Your task to perform on an android device: Go to battery settings Image 0: 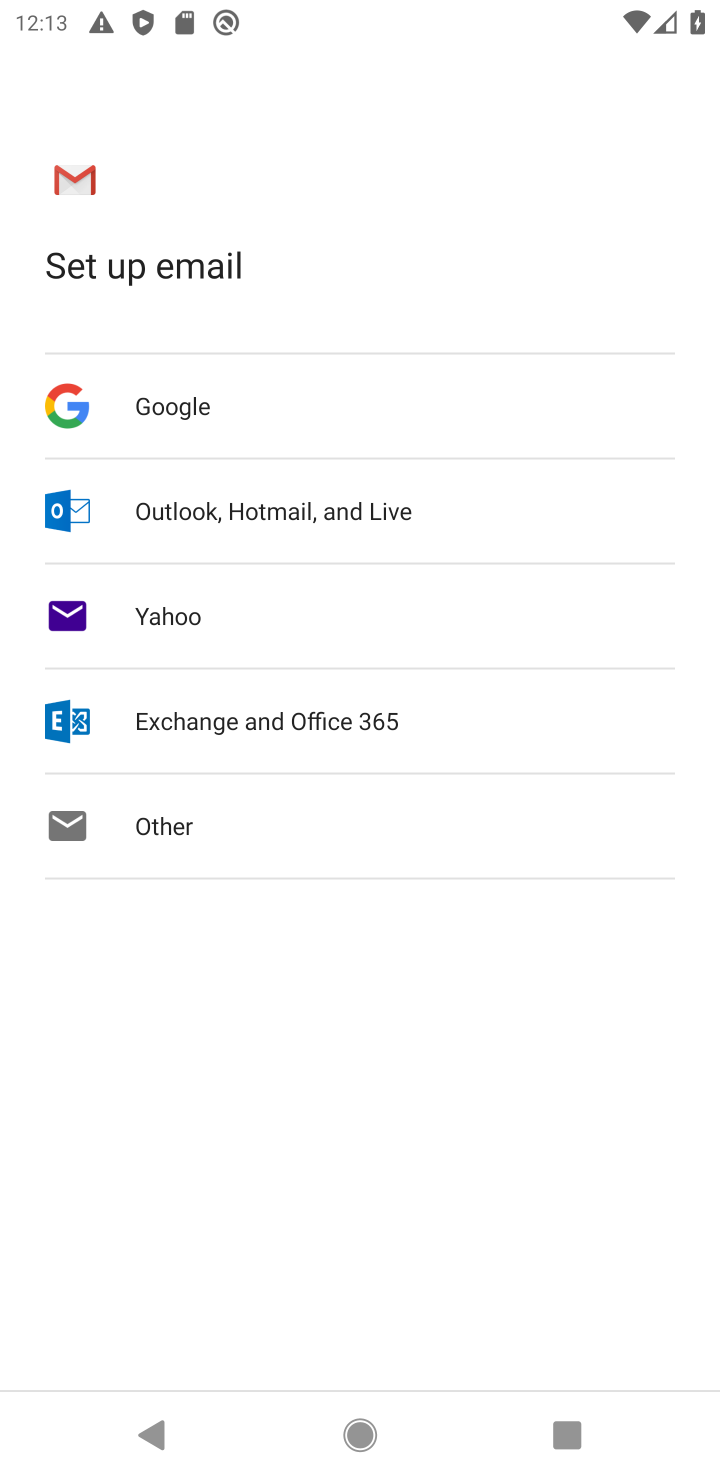
Step 0: press home button
Your task to perform on an android device: Go to battery settings Image 1: 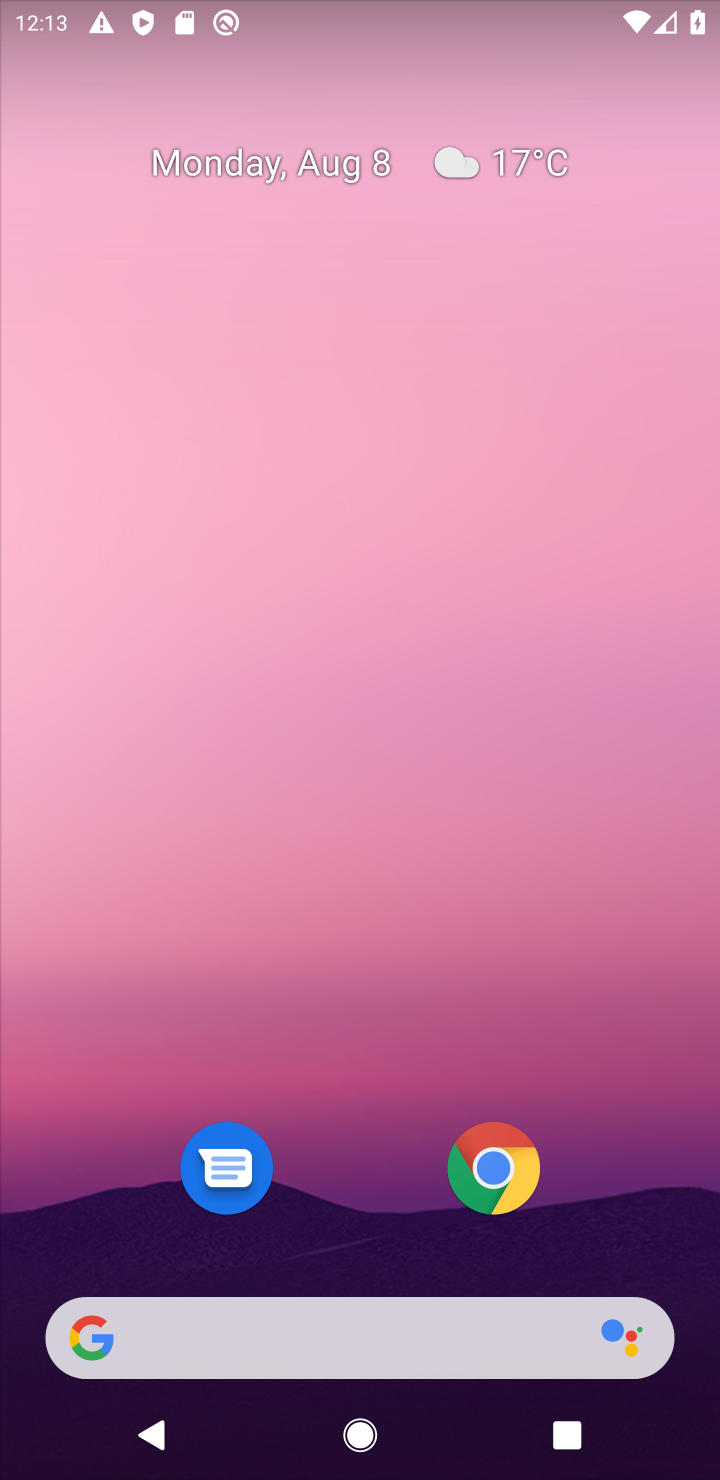
Step 1: drag from (59, 1409) to (369, 544)
Your task to perform on an android device: Go to battery settings Image 2: 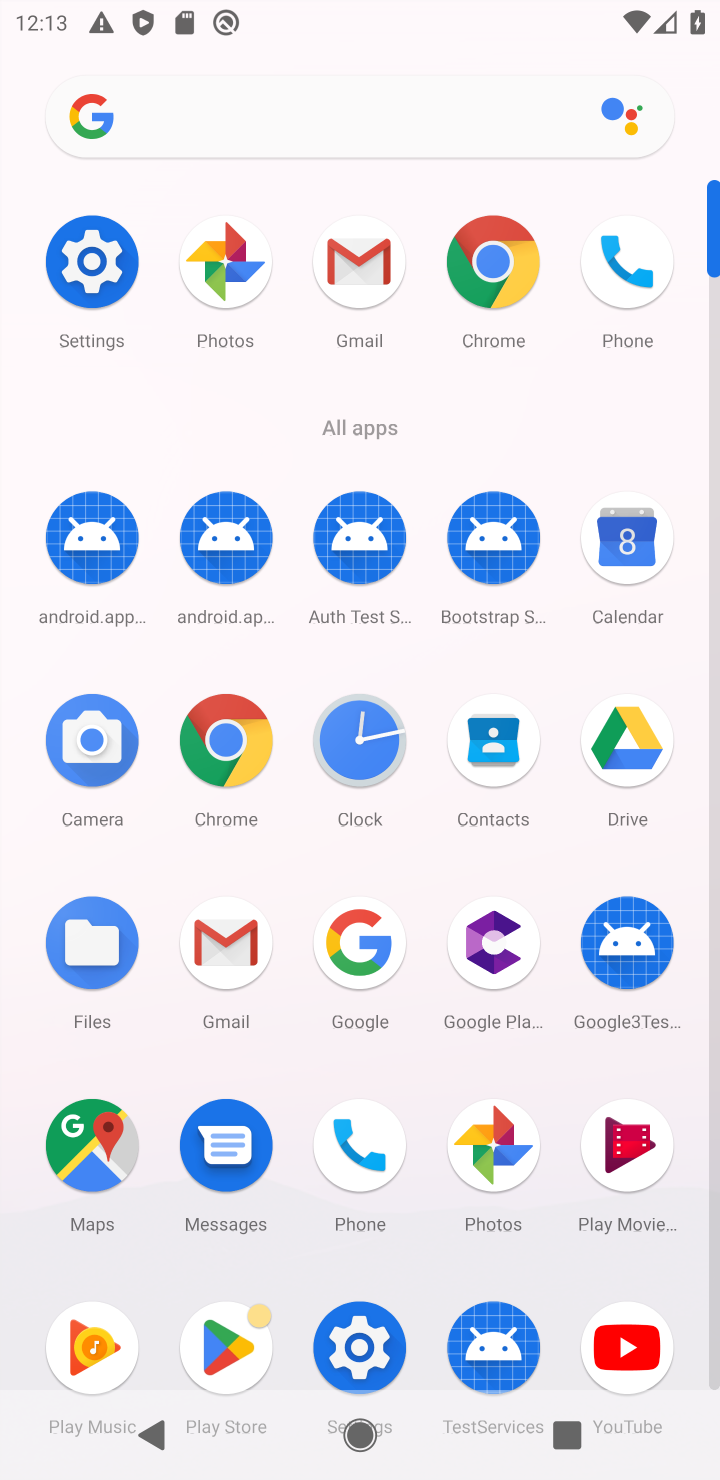
Step 2: click (379, 1327)
Your task to perform on an android device: Go to battery settings Image 3: 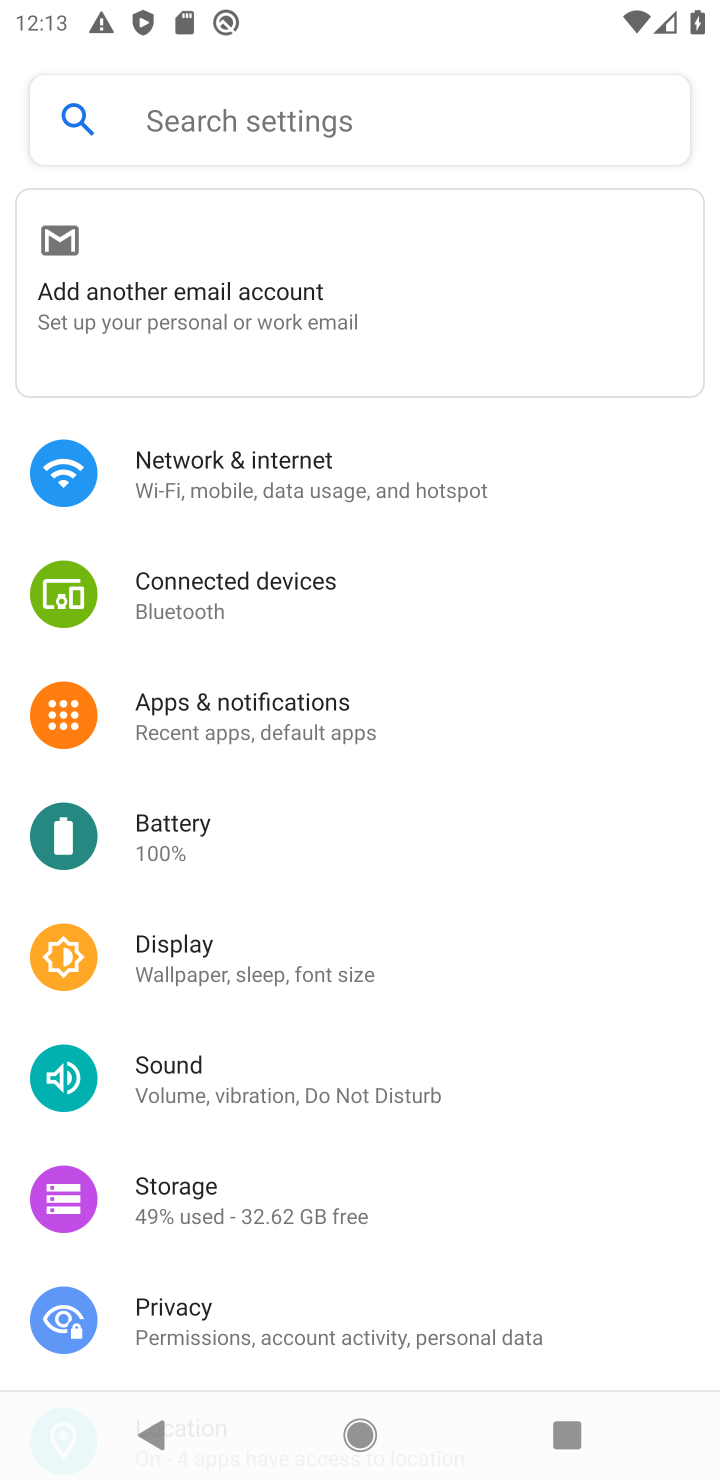
Step 3: click (197, 846)
Your task to perform on an android device: Go to battery settings Image 4: 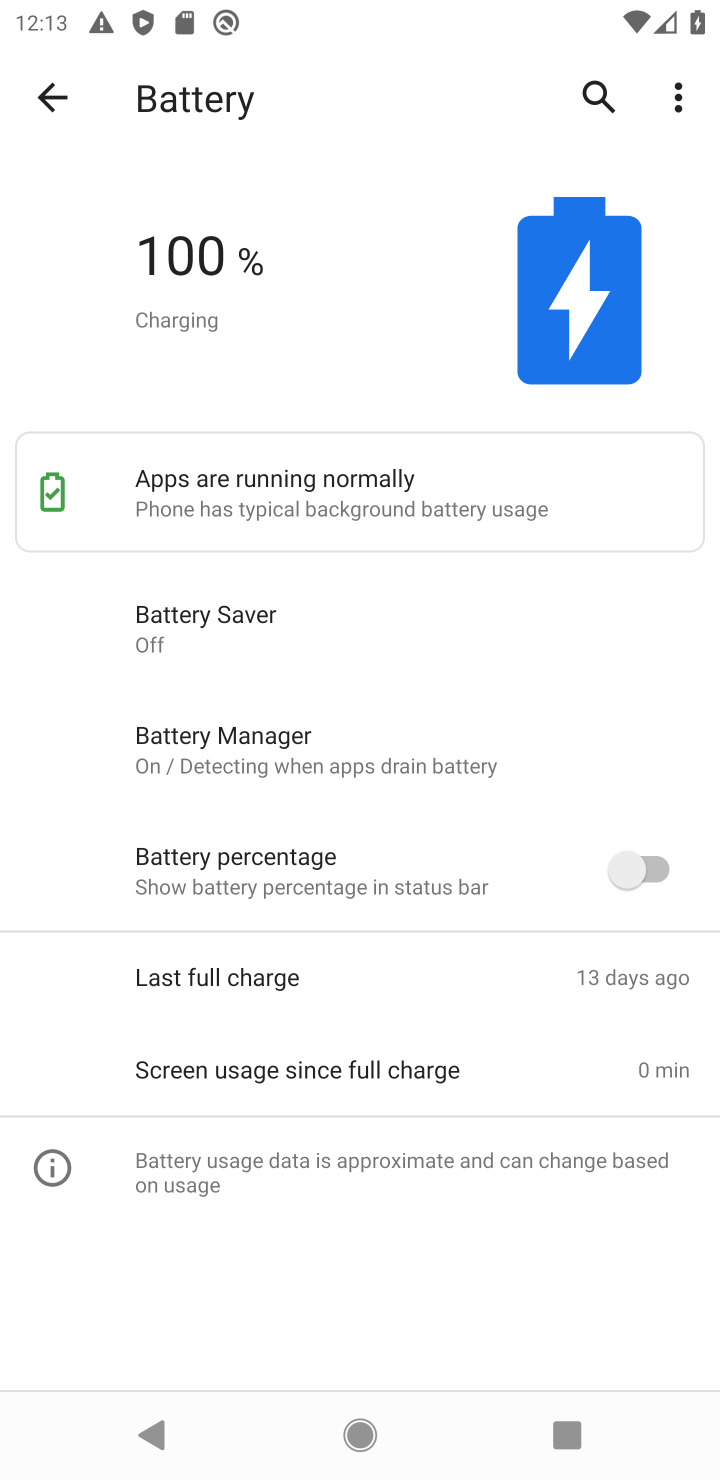
Step 4: task complete